Your task to perform on an android device: Go to ESPN.com Image 0: 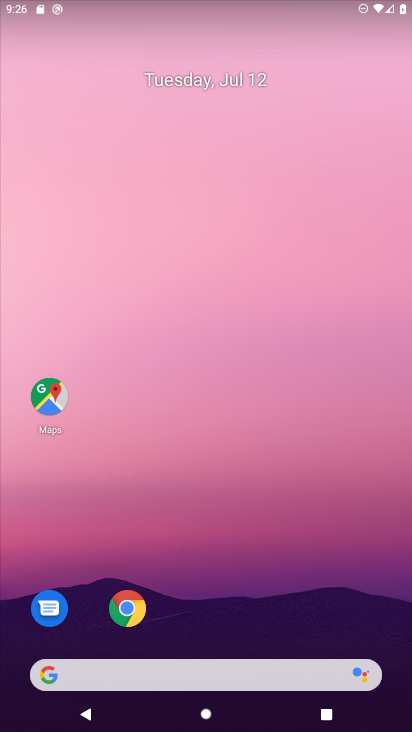
Step 0: click (136, 614)
Your task to perform on an android device: Go to ESPN.com Image 1: 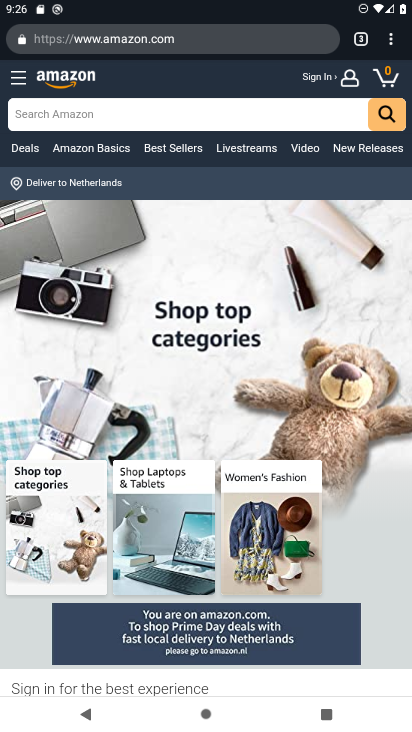
Step 1: click (356, 41)
Your task to perform on an android device: Go to ESPN.com Image 2: 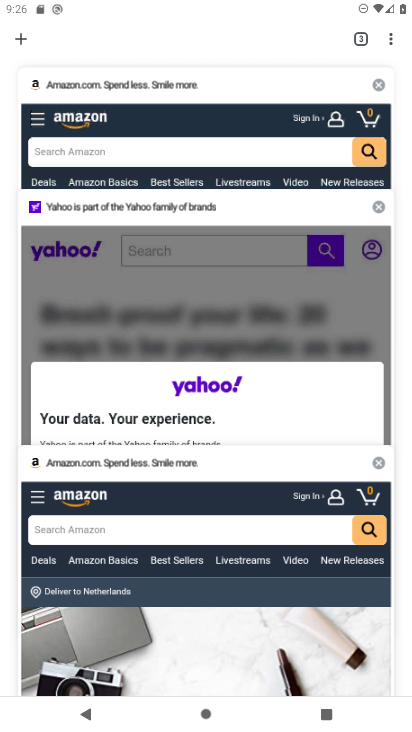
Step 2: click (19, 39)
Your task to perform on an android device: Go to ESPN.com Image 3: 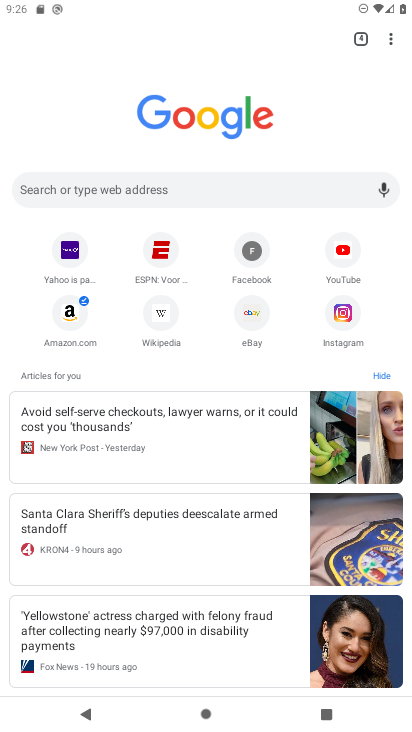
Step 3: click (146, 250)
Your task to perform on an android device: Go to ESPN.com Image 4: 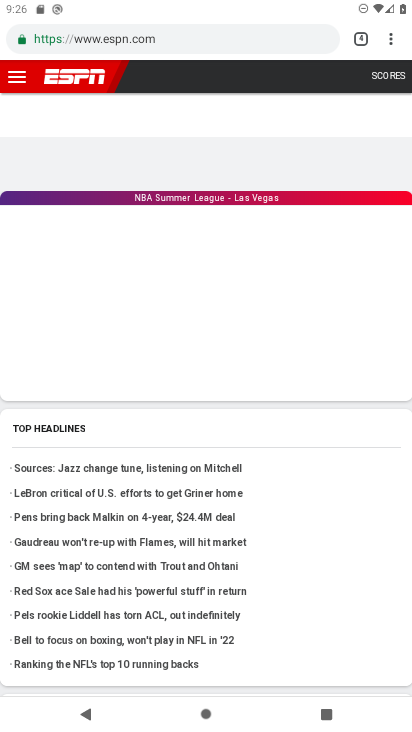
Step 4: task complete